Your task to perform on an android device: set default search engine in the chrome app Image 0: 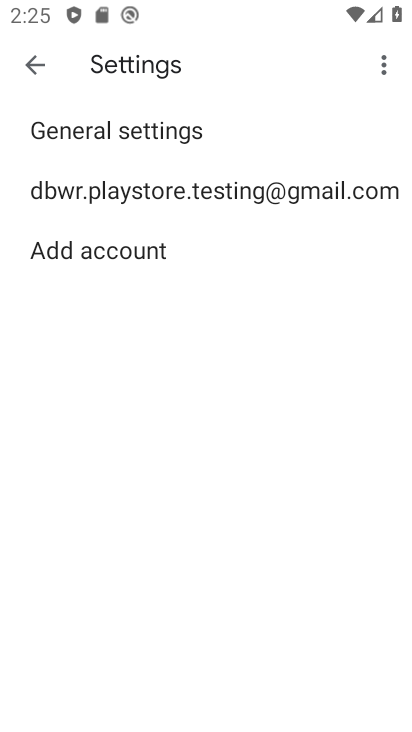
Step 0: press home button
Your task to perform on an android device: set default search engine in the chrome app Image 1: 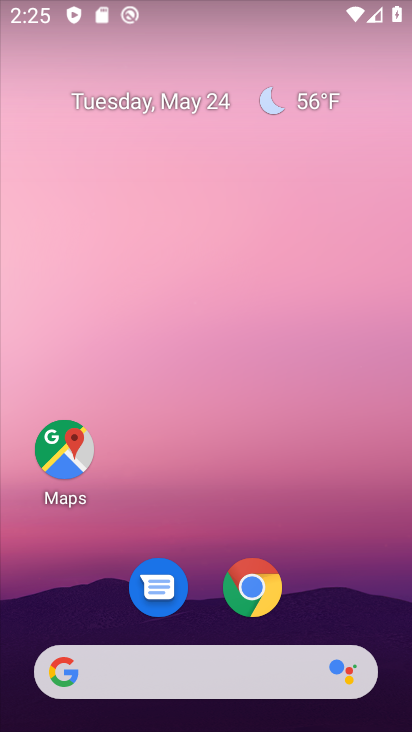
Step 1: click (253, 591)
Your task to perform on an android device: set default search engine in the chrome app Image 2: 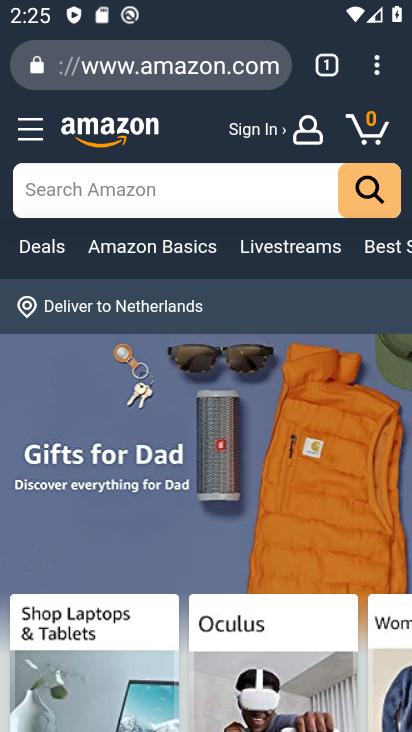
Step 2: click (392, 66)
Your task to perform on an android device: set default search engine in the chrome app Image 3: 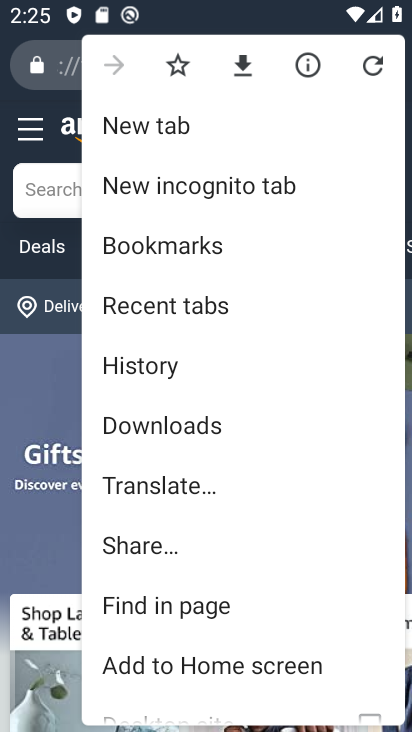
Step 3: drag from (213, 686) to (216, 228)
Your task to perform on an android device: set default search engine in the chrome app Image 4: 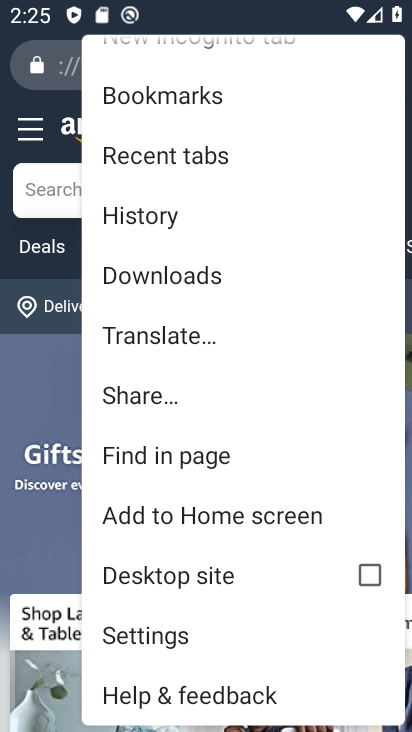
Step 4: click (181, 628)
Your task to perform on an android device: set default search engine in the chrome app Image 5: 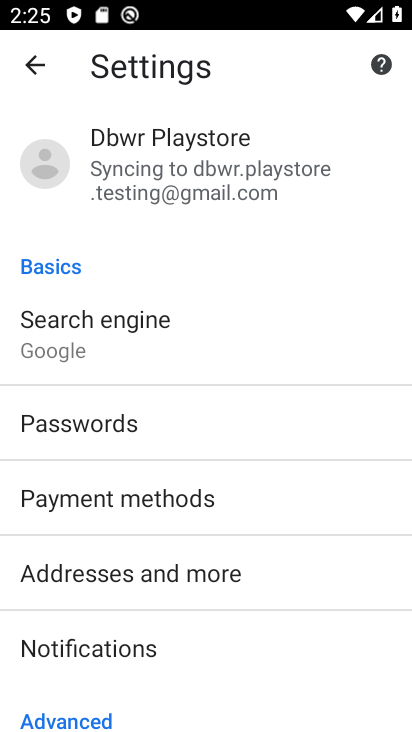
Step 5: click (108, 329)
Your task to perform on an android device: set default search engine in the chrome app Image 6: 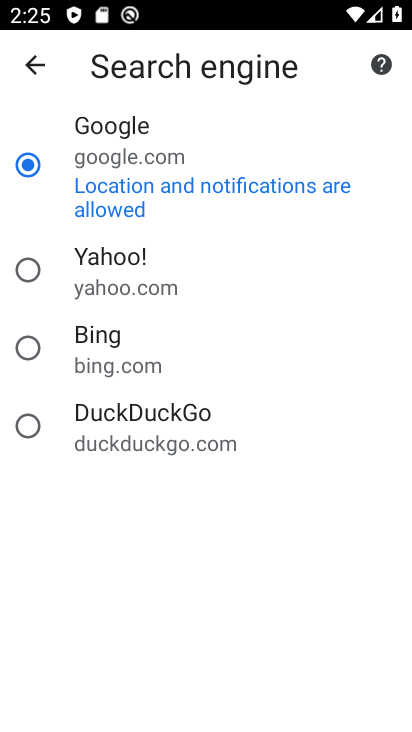
Step 6: click (149, 351)
Your task to perform on an android device: set default search engine in the chrome app Image 7: 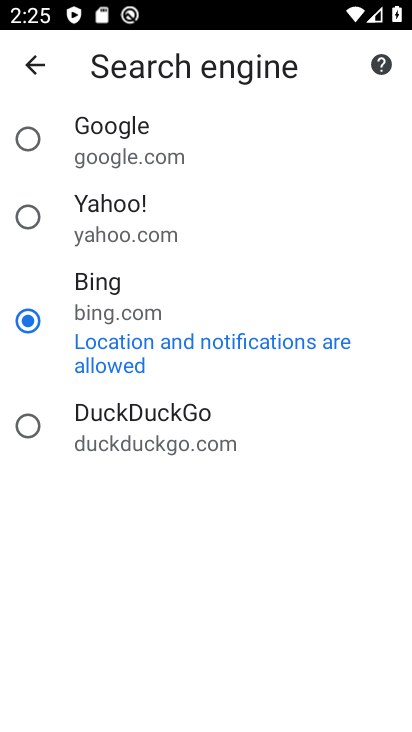
Step 7: task complete